Your task to perform on an android device: change the clock style Image 0: 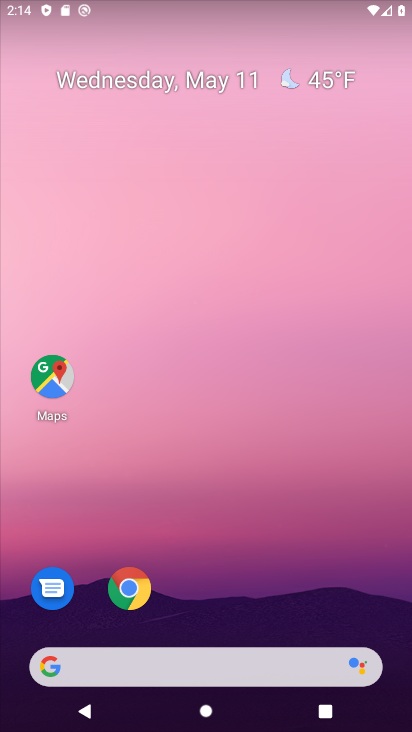
Step 0: drag from (253, 554) to (286, 255)
Your task to perform on an android device: change the clock style Image 1: 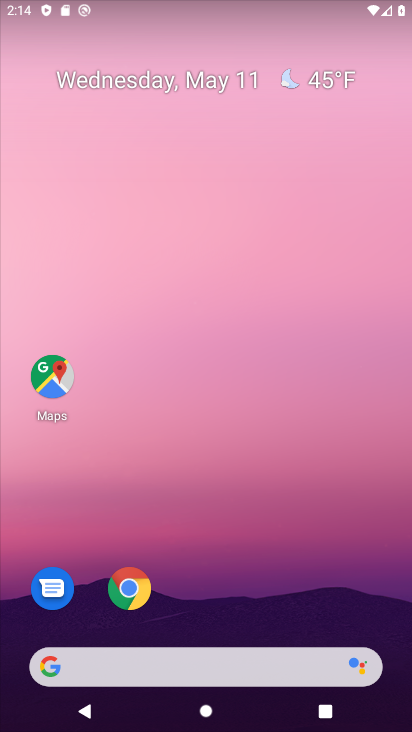
Step 1: drag from (187, 637) to (267, 186)
Your task to perform on an android device: change the clock style Image 2: 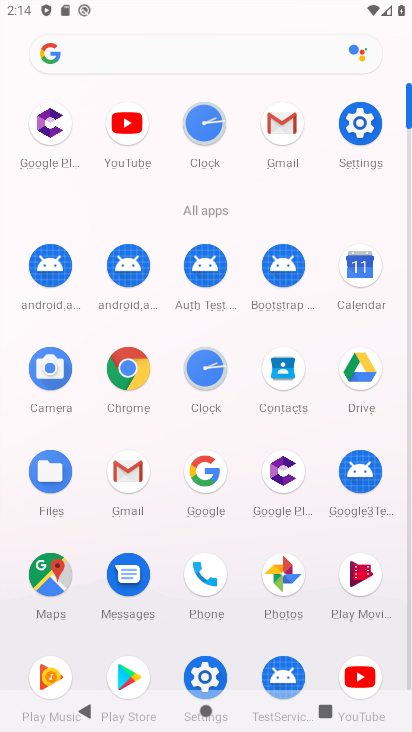
Step 2: click (198, 371)
Your task to perform on an android device: change the clock style Image 3: 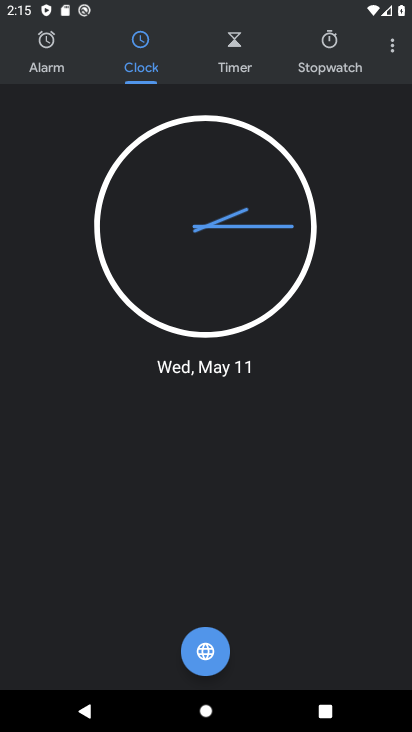
Step 3: click (391, 48)
Your task to perform on an android device: change the clock style Image 4: 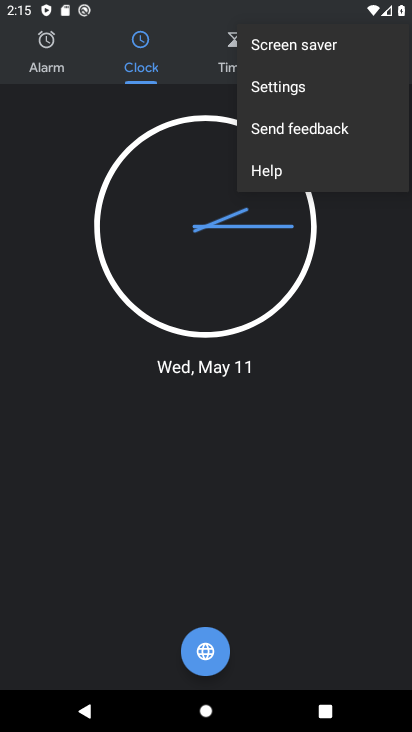
Step 4: click (295, 97)
Your task to perform on an android device: change the clock style Image 5: 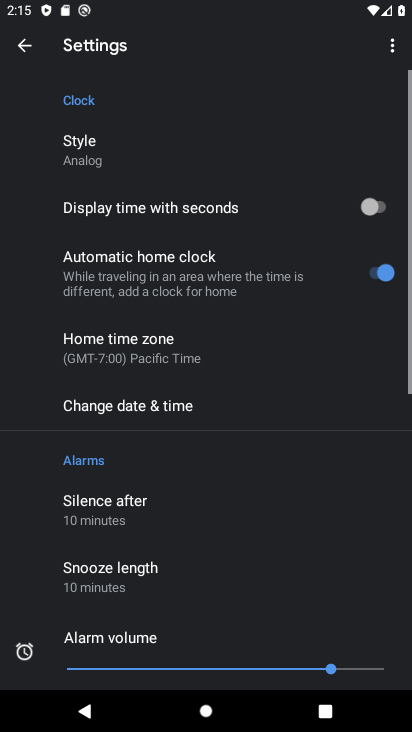
Step 5: click (109, 155)
Your task to perform on an android device: change the clock style Image 6: 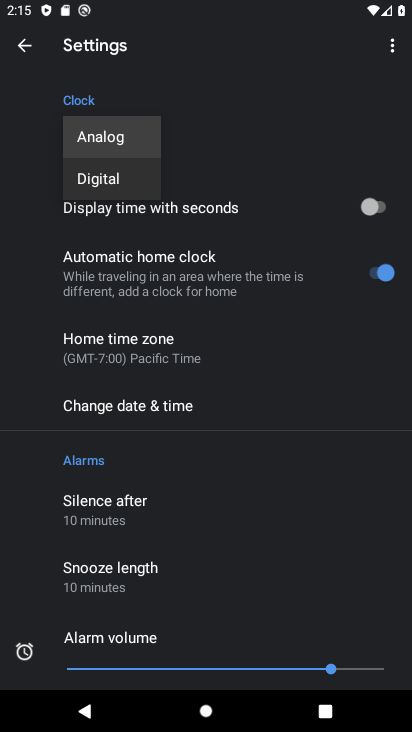
Step 6: click (116, 184)
Your task to perform on an android device: change the clock style Image 7: 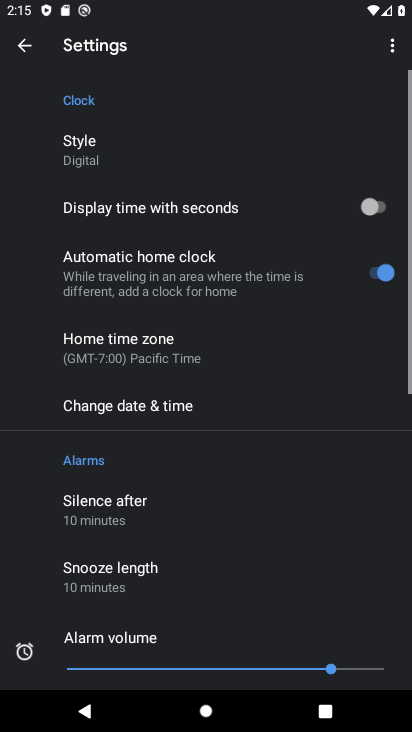
Step 7: task complete